Your task to perform on an android device: Clear the shopping cart on costco.com. Add "usb-a" to the cart on costco.com, then select checkout. Image 0: 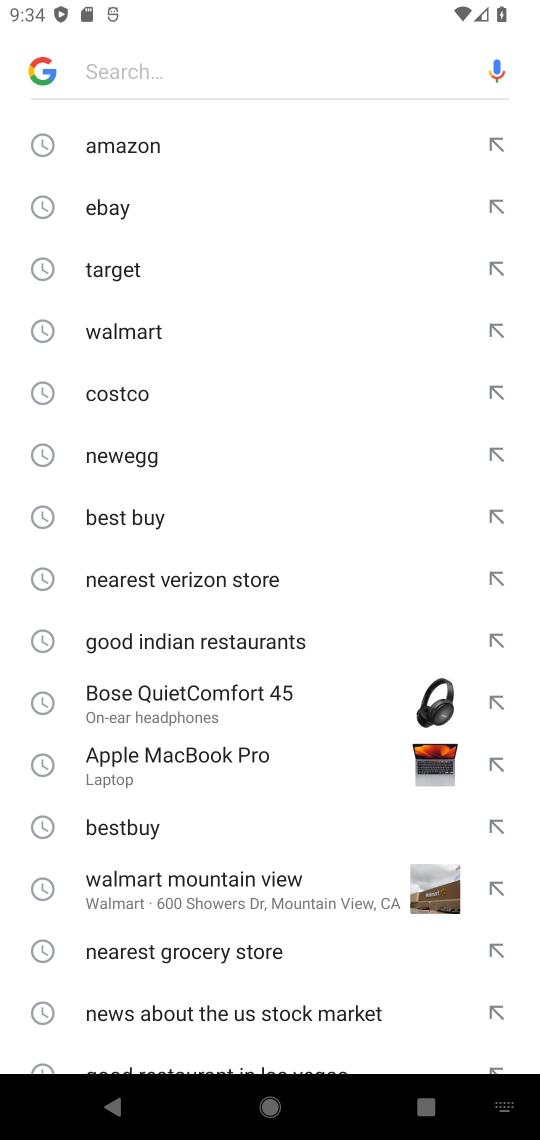
Step 0: press home button
Your task to perform on an android device: Clear the shopping cart on costco.com. Add "usb-a" to the cart on costco.com, then select checkout. Image 1: 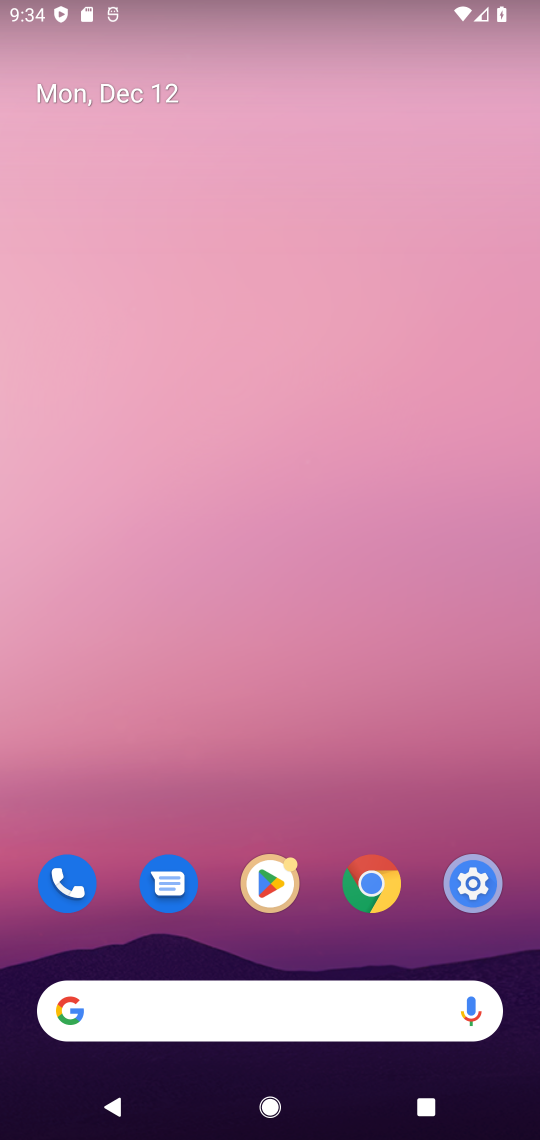
Step 1: drag from (285, 909) to (250, 275)
Your task to perform on an android device: Clear the shopping cart on costco.com. Add "usb-a" to the cart on costco.com, then select checkout. Image 2: 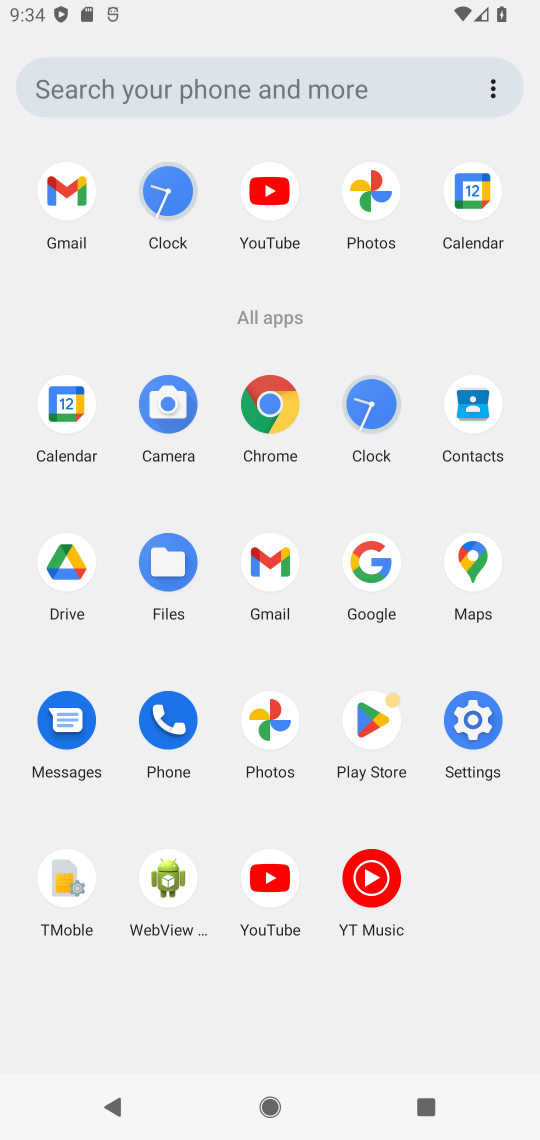
Step 2: click (366, 555)
Your task to perform on an android device: Clear the shopping cart on costco.com. Add "usb-a" to the cart on costco.com, then select checkout. Image 3: 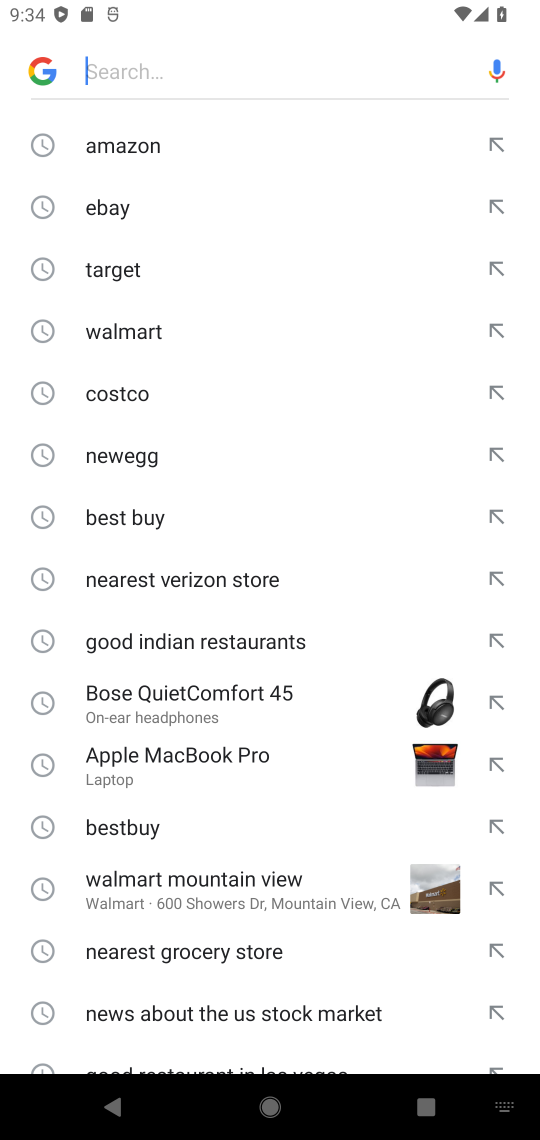
Step 3: click (120, 394)
Your task to perform on an android device: Clear the shopping cart on costco.com. Add "usb-a" to the cart on costco.com, then select checkout. Image 4: 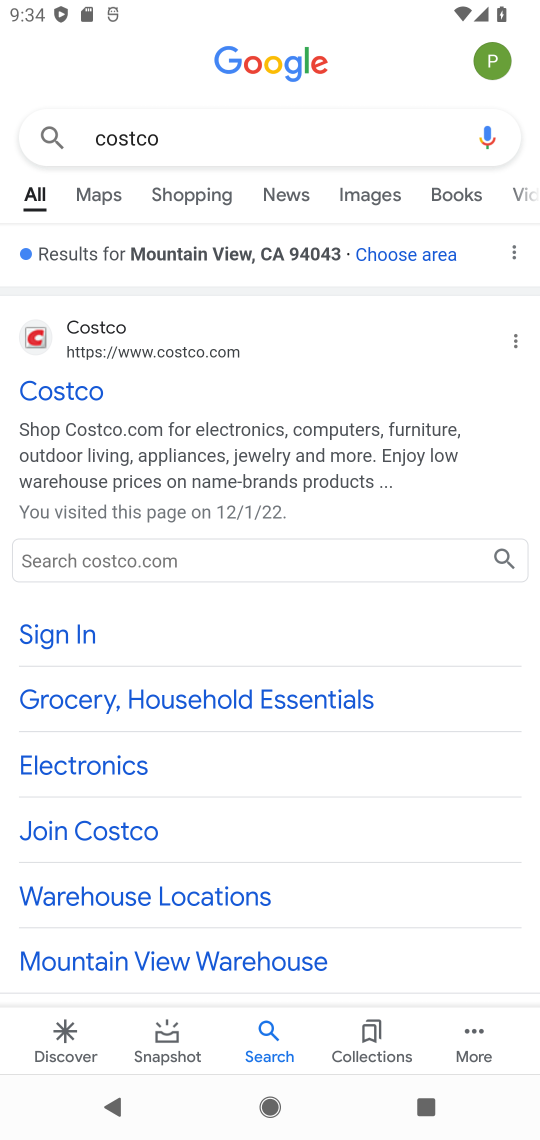
Step 4: click (46, 389)
Your task to perform on an android device: Clear the shopping cart on costco.com. Add "usb-a" to the cart on costco.com, then select checkout. Image 5: 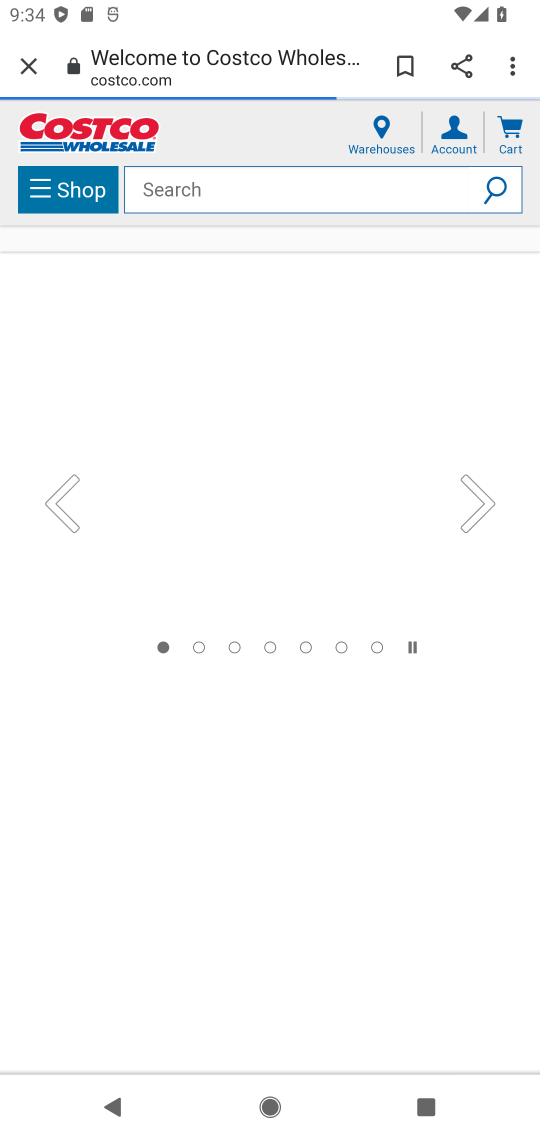
Step 5: click (503, 124)
Your task to perform on an android device: Clear the shopping cart on costco.com. Add "usb-a" to the cart on costco.com, then select checkout. Image 6: 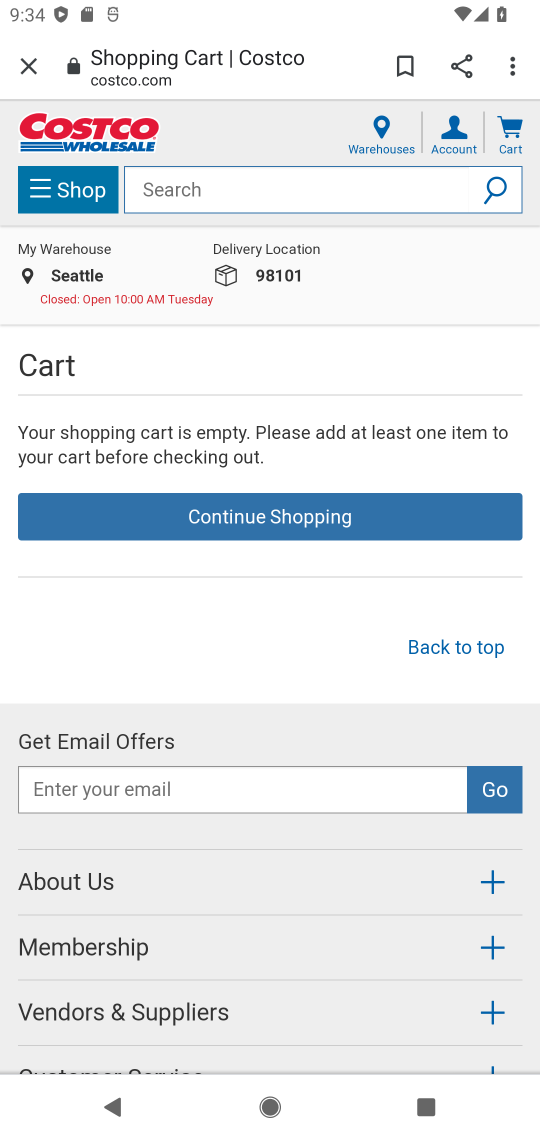
Step 6: click (241, 173)
Your task to perform on an android device: Clear the shopping cart on costco.com. Add "usb-a" to the cart on costco.com, then select checkout. Image 7: 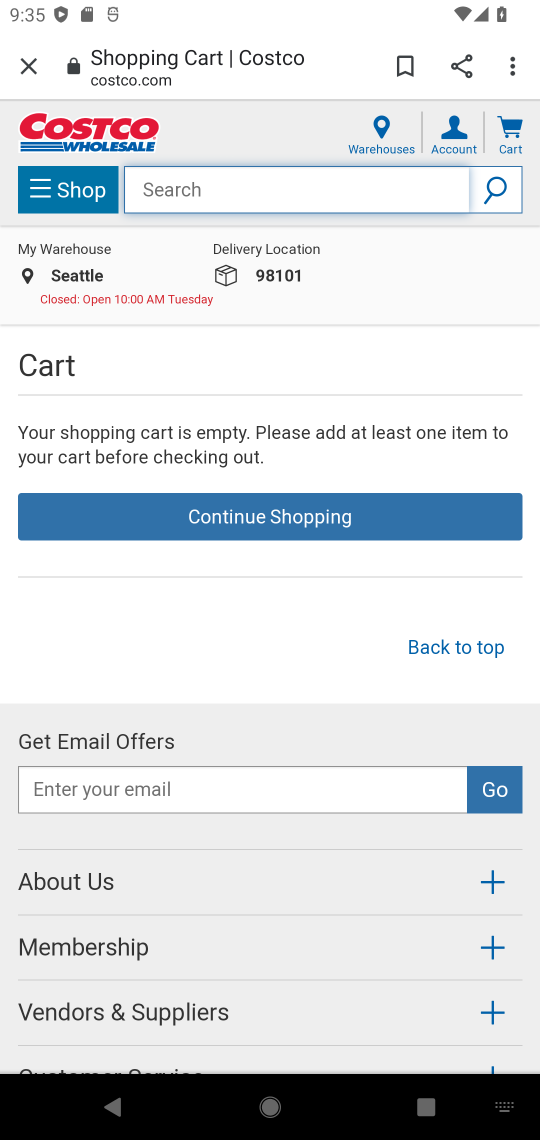
Step 7: type "usb-a"
Your task to perform on an android device: Clear the shopping cart on costco.com. Add "usb-a" to the cart on costco.com, then select checkout. Image 8: 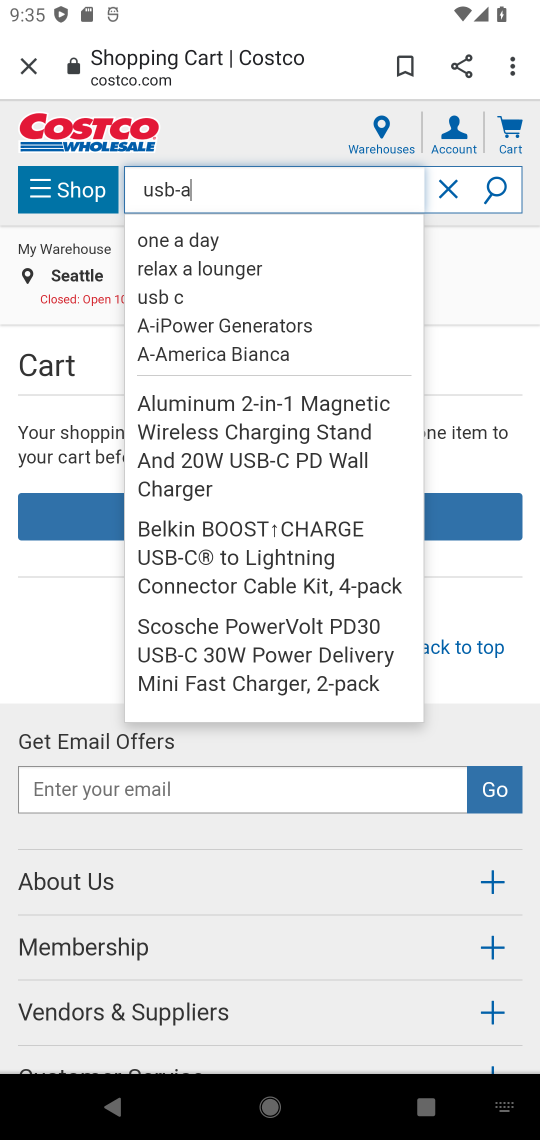
Step 8: click (500, 179)
Your task to perform on an android device: Clear the shopping cart on costco.com. Add "usb-a" to the cart on costco.com, then select checkout. Image 9: 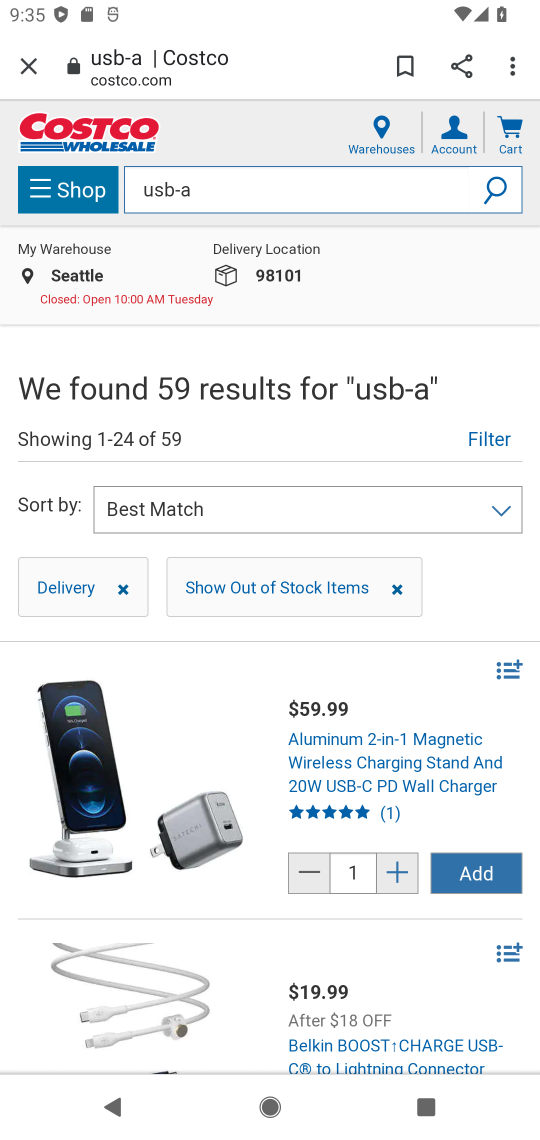
Step 9: click (473, 854)
Your task to perform on an android device: Clear the shopping cart on costco.com. Add "usb-a" to the cart on costco.com, then select checkout. Image 10: 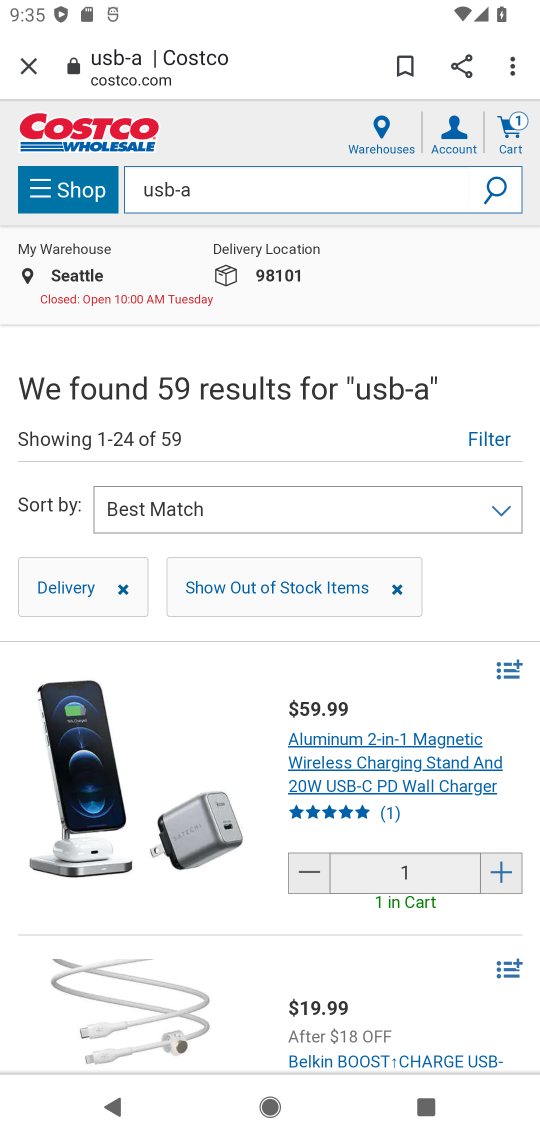
Step 10: click (503, 121)
Your task to perform on an android device: Clear the shopping cart on costco.com. Add "usb-a" to the cart on costco.com, then select checkout. Image 11: 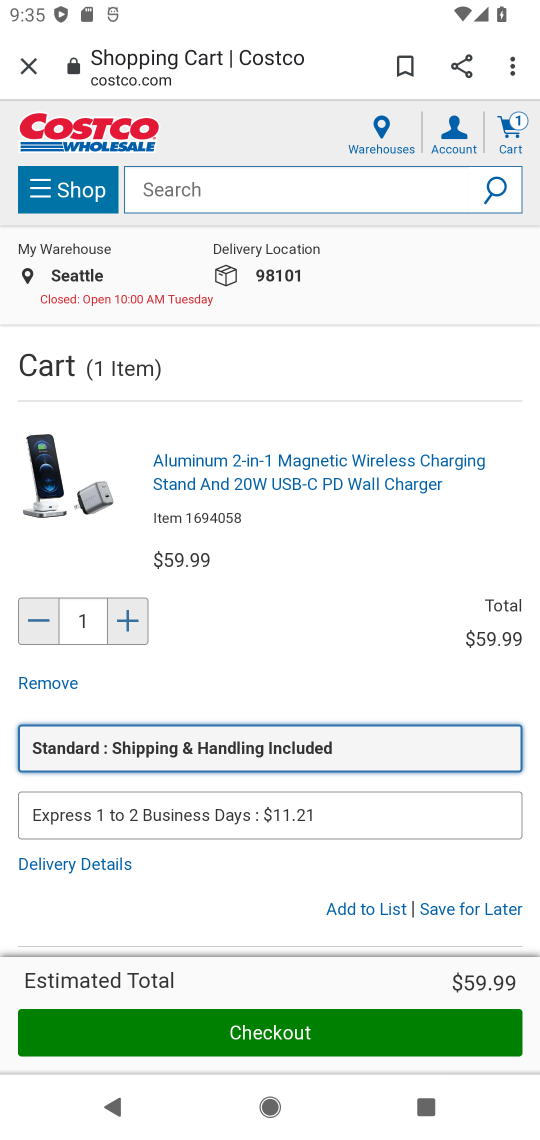
Step 11: click (276, 1034)
Your task to perform on an android device: Clear the shopping cart on costco.com. Add "usb-a" to the cart on costco.com, then select checkout. Image 12: 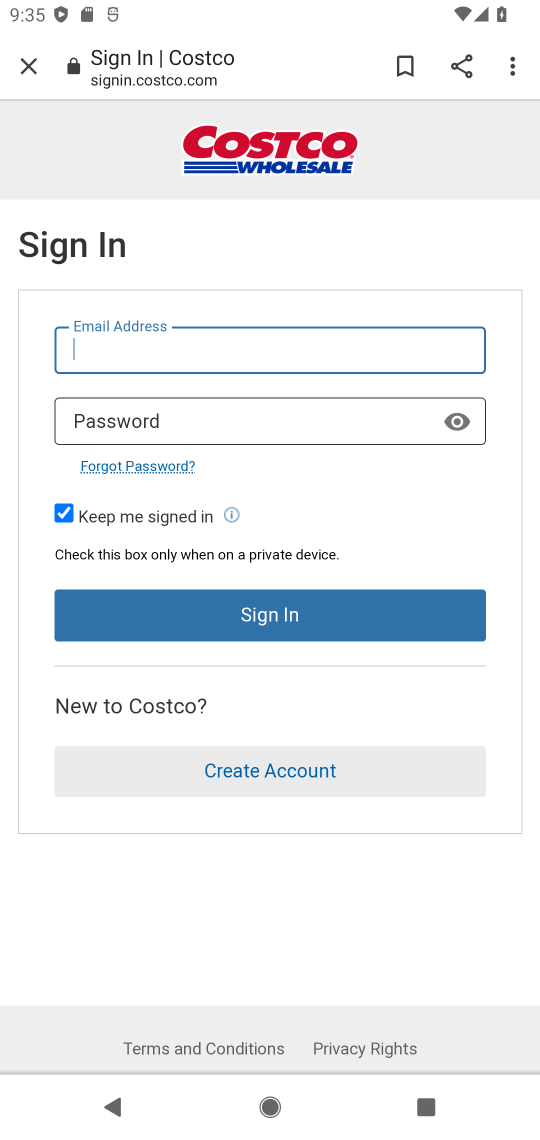
Step 12: task complete